Your task to perform on an android device: Search for seafood restaurants on Google Maps Image 0: 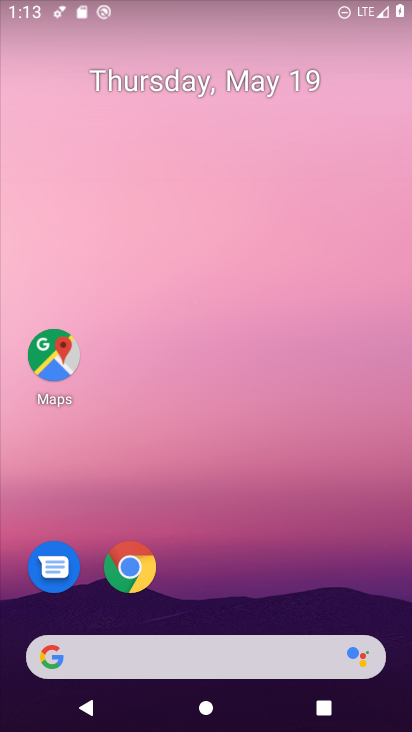
Step 0: click (58, 345)
Your task to perform on an android device: Search for seafood restaurants on Google Maps Image 1: 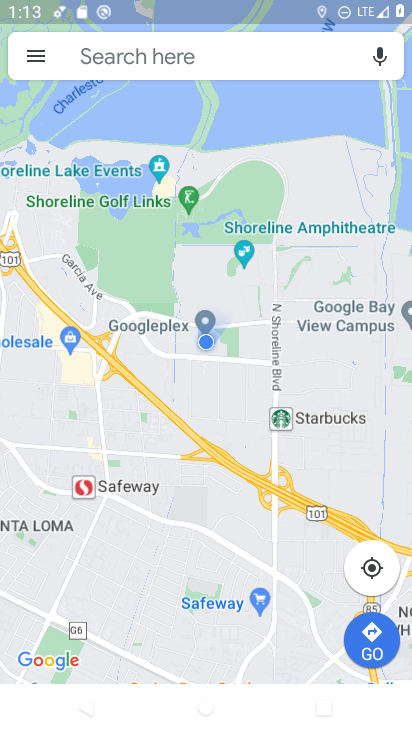
Step 1: click (87, 47)
Your task to perform on an android device: Search for seafood restaurants on Google Maps Image 2: 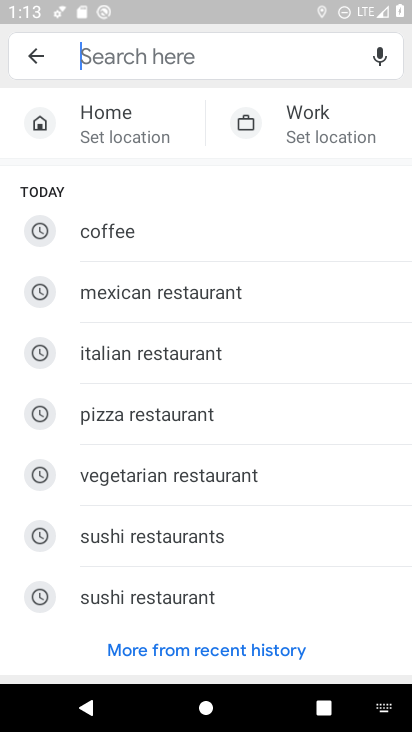
Step 2: type "seafood restaurants"
Your task to perform on an android device: Search for seafood restaurants on Google Maps Image 3: 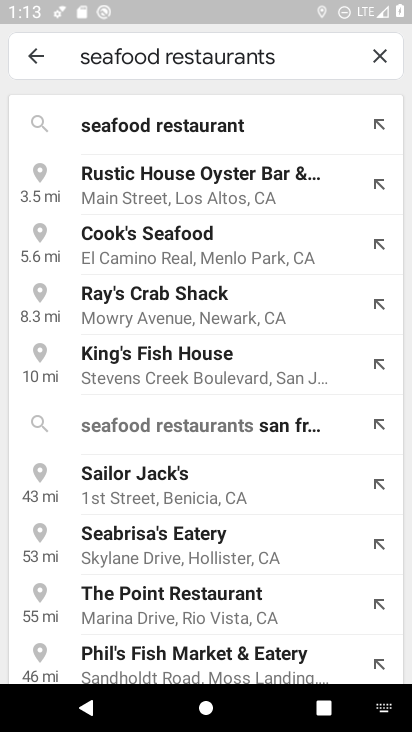
Step 3: click (219, 116)
Your task to perform on an android device: Search for seafood restaurants on Google Maps Image 4: 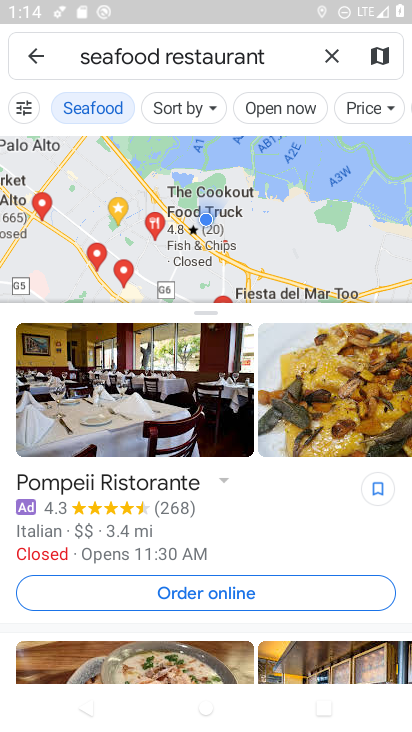
Step 4: task complete